Your task to perform on an android device: Open sound settings Image 0: 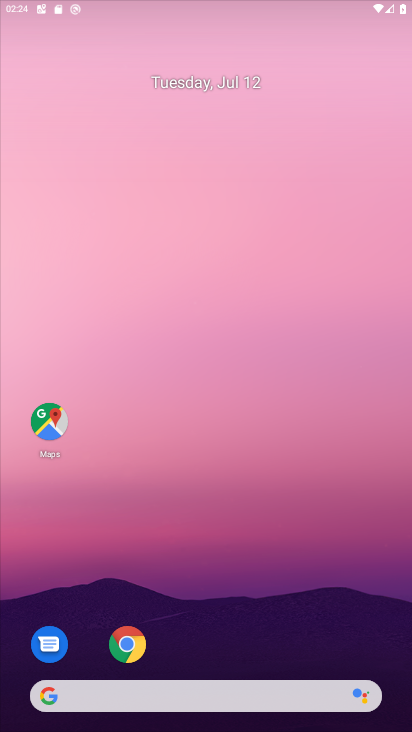
Step 0: click (239, 87)
Your task to perform on an android device: Open sound settings Image 1: 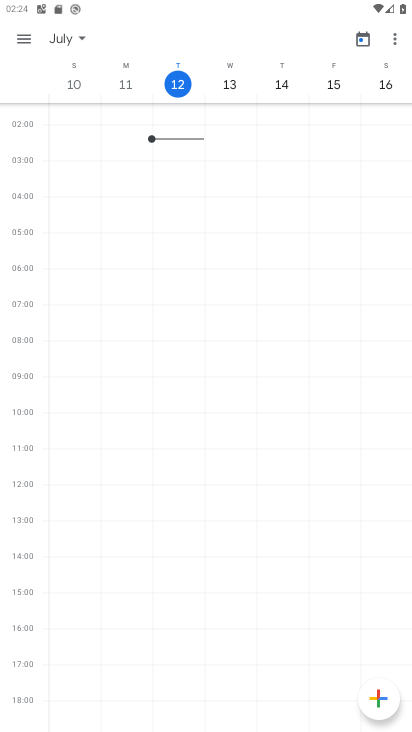
Step 1: press home button
Your task to perform on an android device: Open sound settings Image 2: 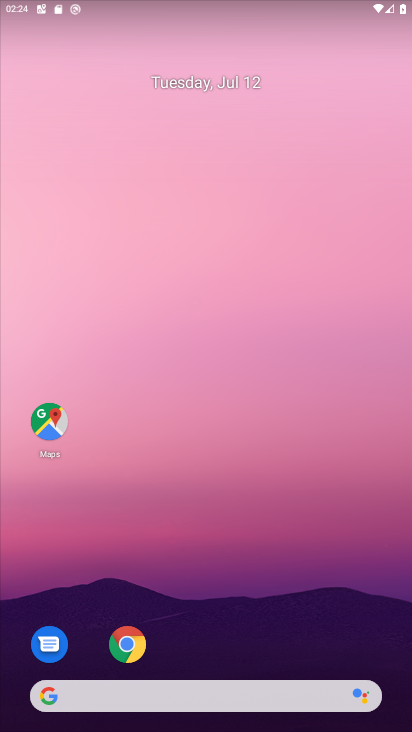
Step 2: drag from (221, 672) to (179, 100)
Your task to perform on an android device: Open sound settings Image 3: 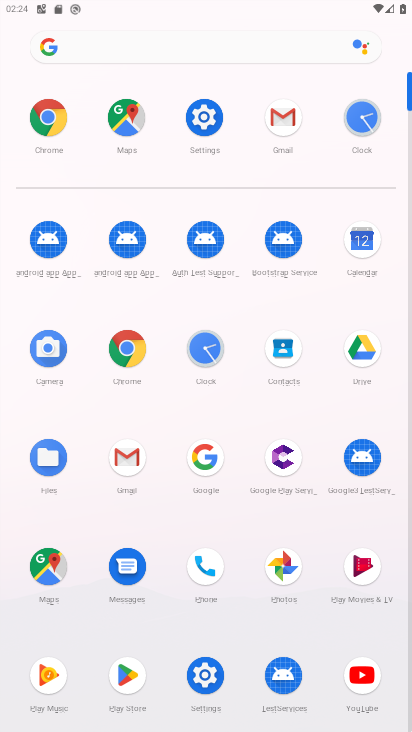
Step 3: click (208, 120)
Your task to perform on an android device: Open sound settings Image 4: 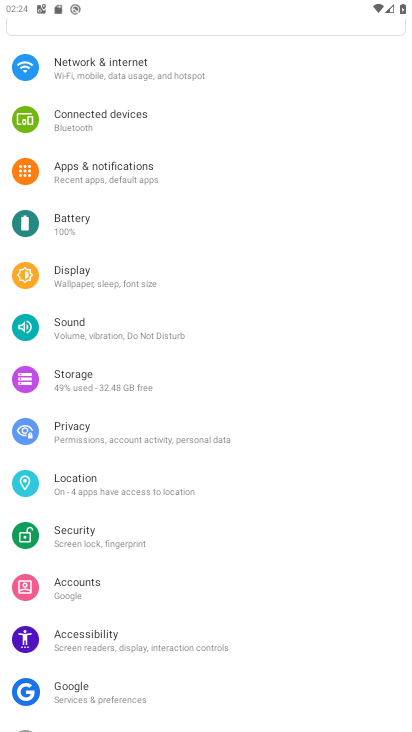
Step 4: click (101, 335)
Your task to perform on an android device: Open sound settings Image 5: 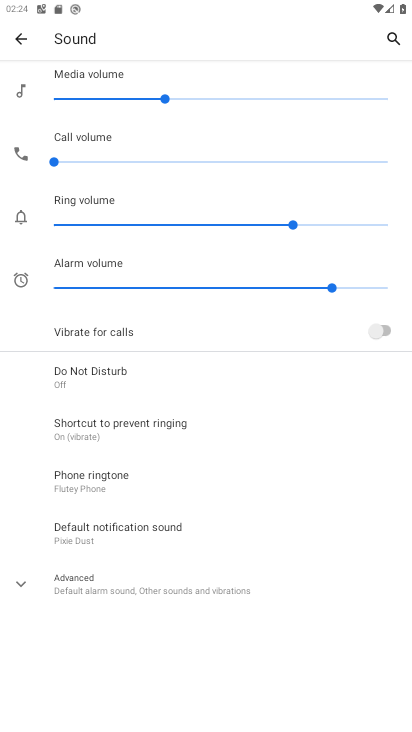
Step 5: task complete